Your task to perform on an android device: star an email in the gmail app Image 0: 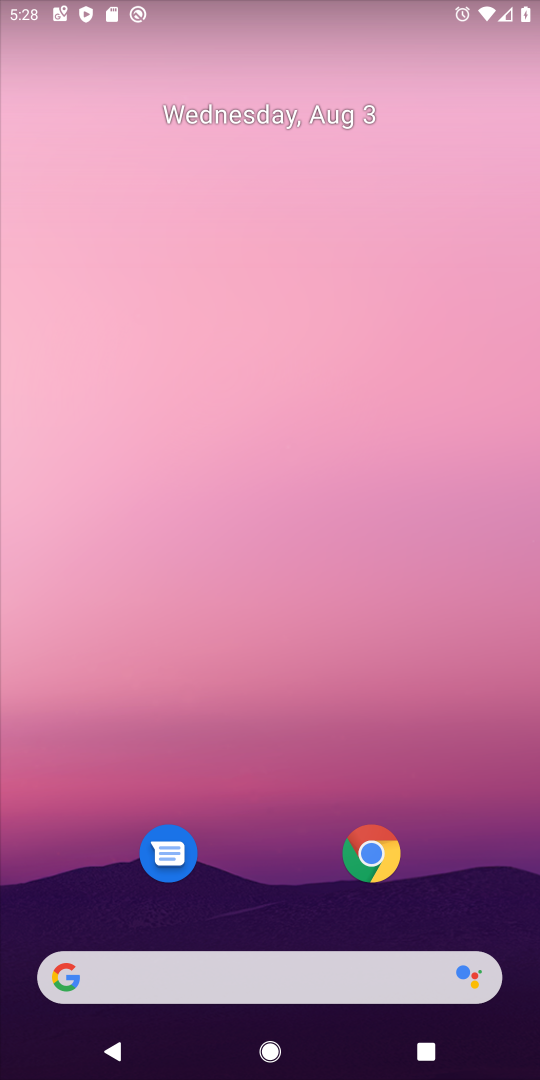
Step 0: drag from (477, 867) to (399, 365)
Your task to perform on an android device: star an email in the gmail app Image 1: 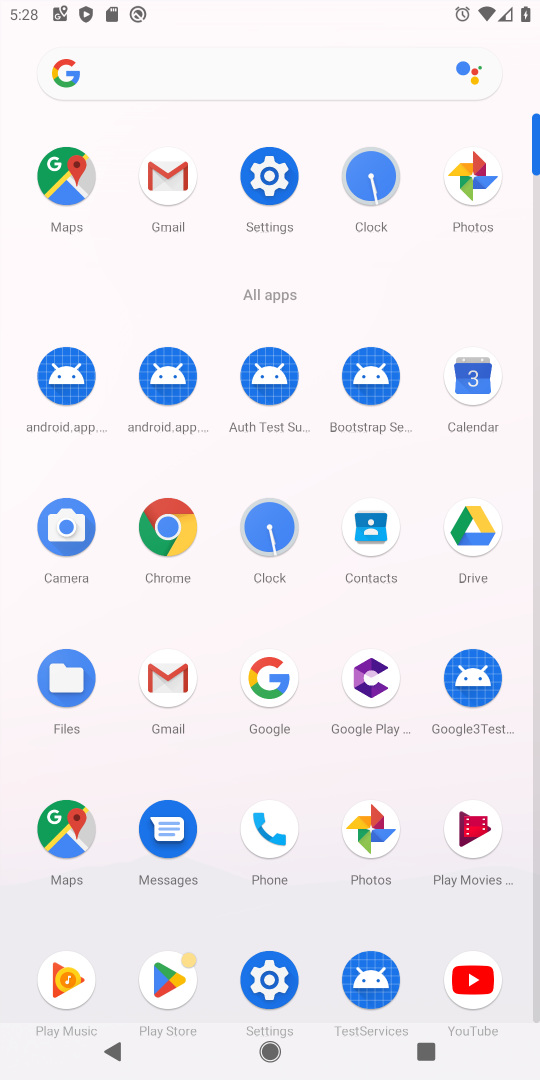
Step 1: click (170, 689)
Your task to perform on an android device: star an email in the gmail app Image 2: 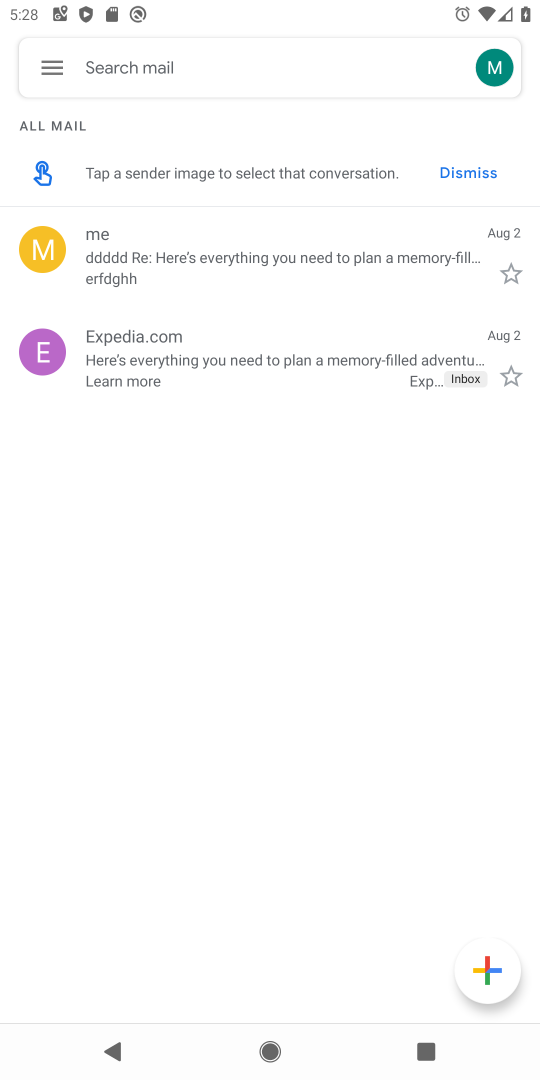
Step 2: click (512, 271)
Your task to perform on an android device: star an email in the gmail app Image 3: 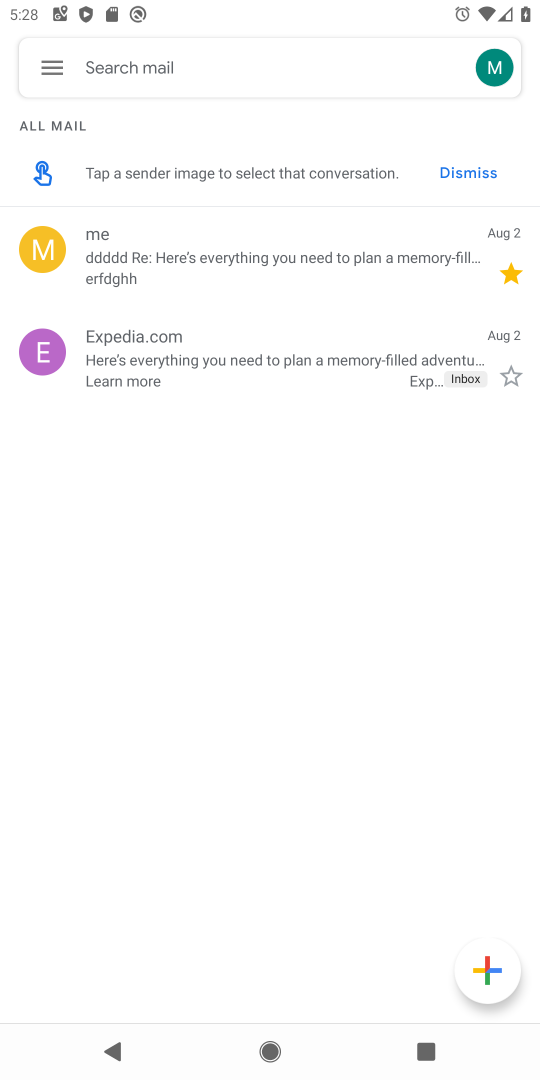
Step 3: task complete